Your task to perform on an android device: What's the news in India? Image 0: 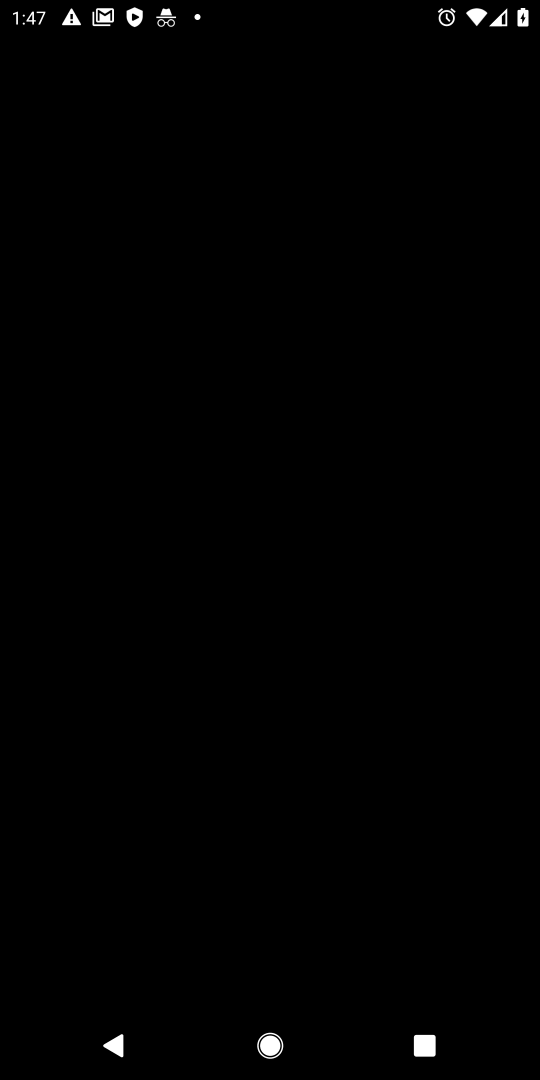
Step 0: press home button
Your task to perform on an android device: What's the news in India? Image 1: 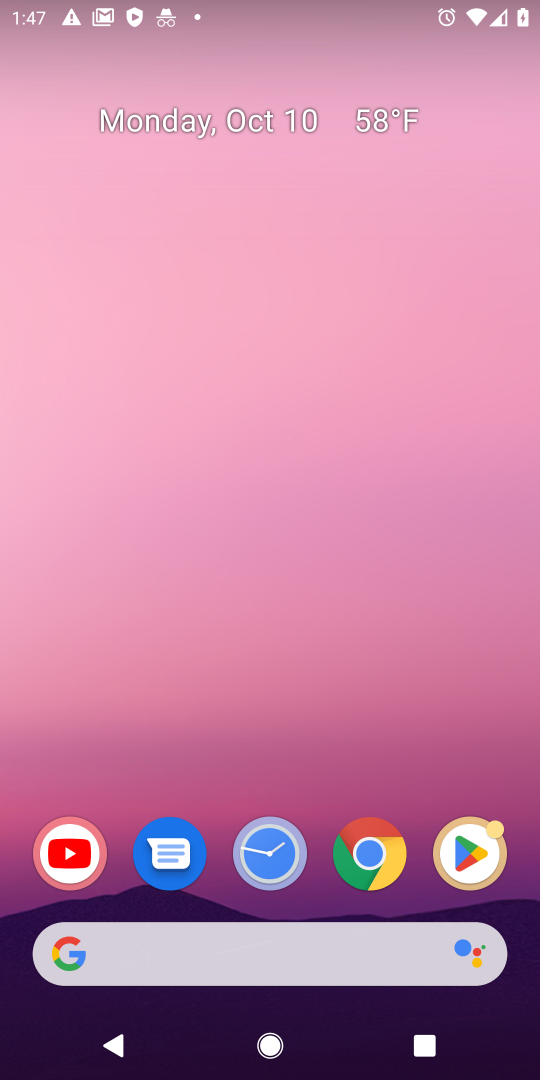
Step 1: click (363, 844)
Your task to perform on an android device: What's the news in India? Image 2: 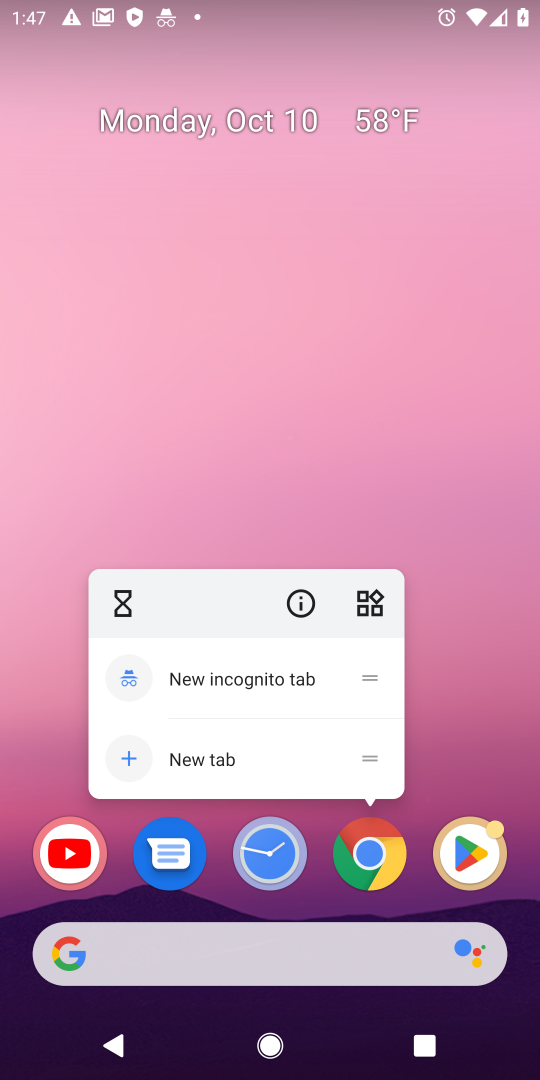
Step 2: click (355, 867)
Your task to perform on an android device: What's the news in India? Image 3: 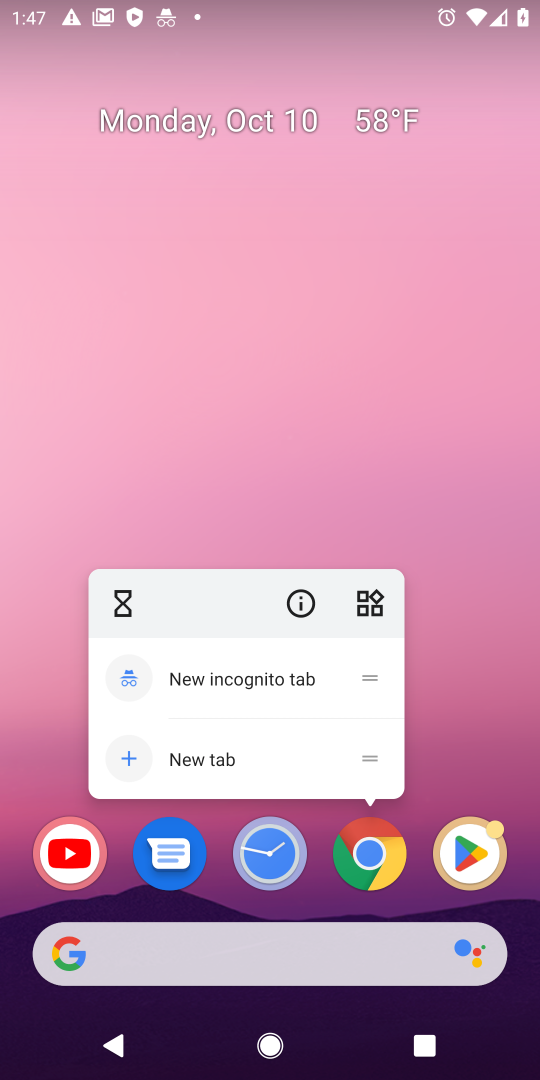
Step 3: click (380, 874)
Your task to perform on an android device: What's the news in India? Image 4: 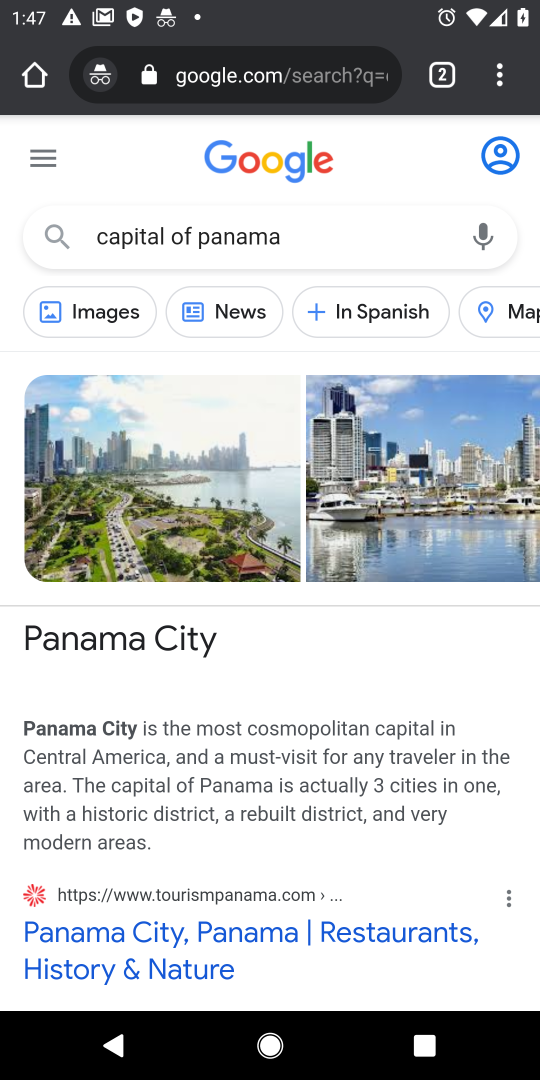
Step 4: click (314, 247)
Your task to perform on an android device: What's the news in India? Image 5: 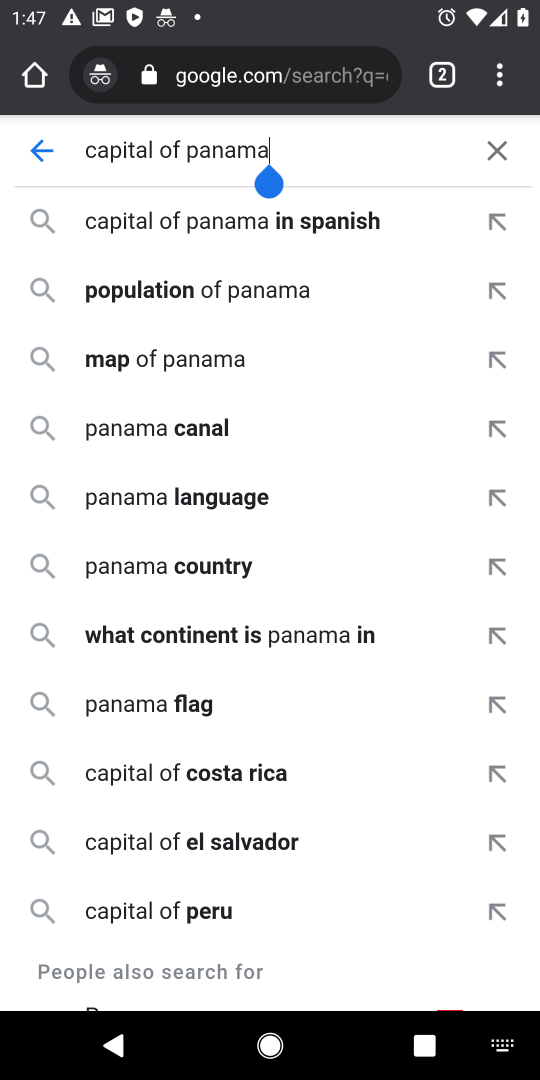
Step 5: click (500, 153)
Your task to perform on an android device: What's the news in India? Image 6: 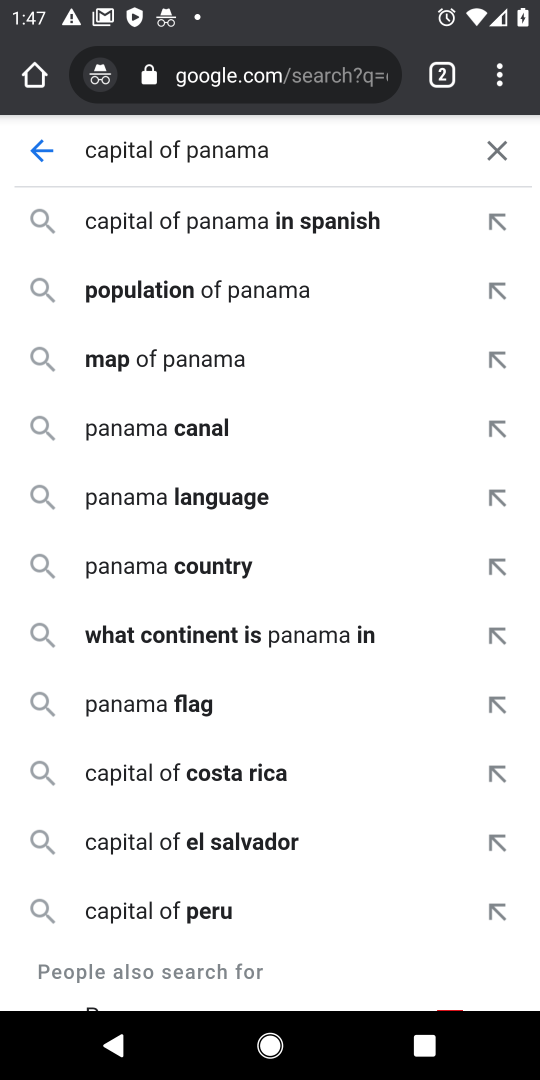
Step 6: click (499, 156)
Your task to perform on an android device: What's the news in India? Image 7: 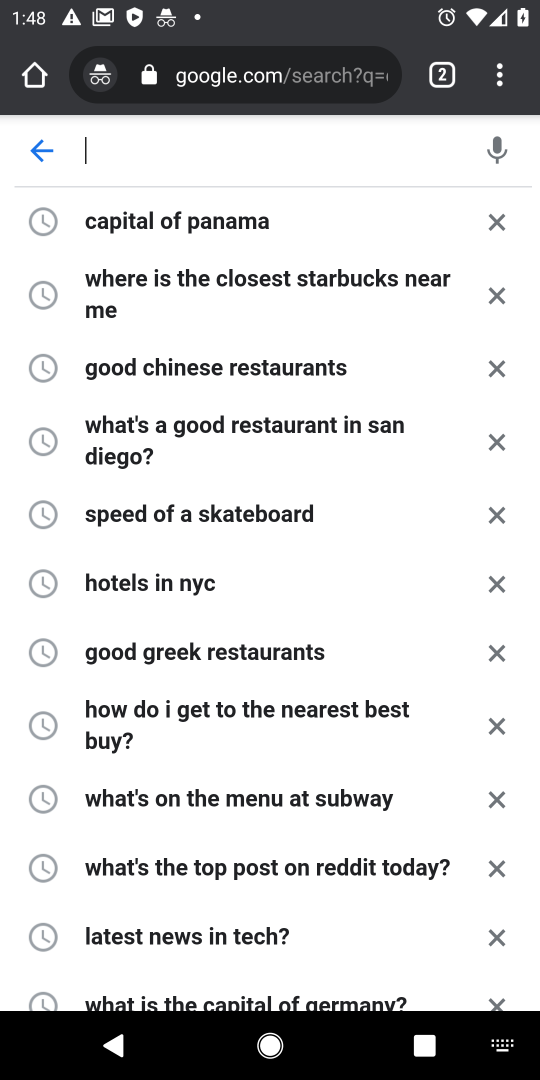
Step 7: type "news in india"
Your task to perform on an android device: What's the news in India? Image 8: 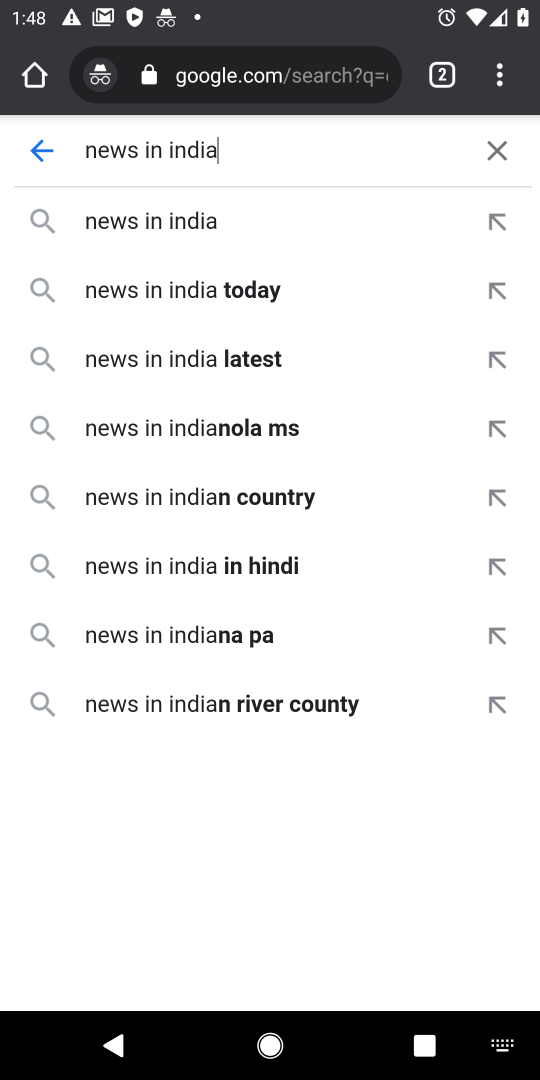
Step 8: click (212, 220)
Your task to perform on an android device: What's the news in India? Image 9: 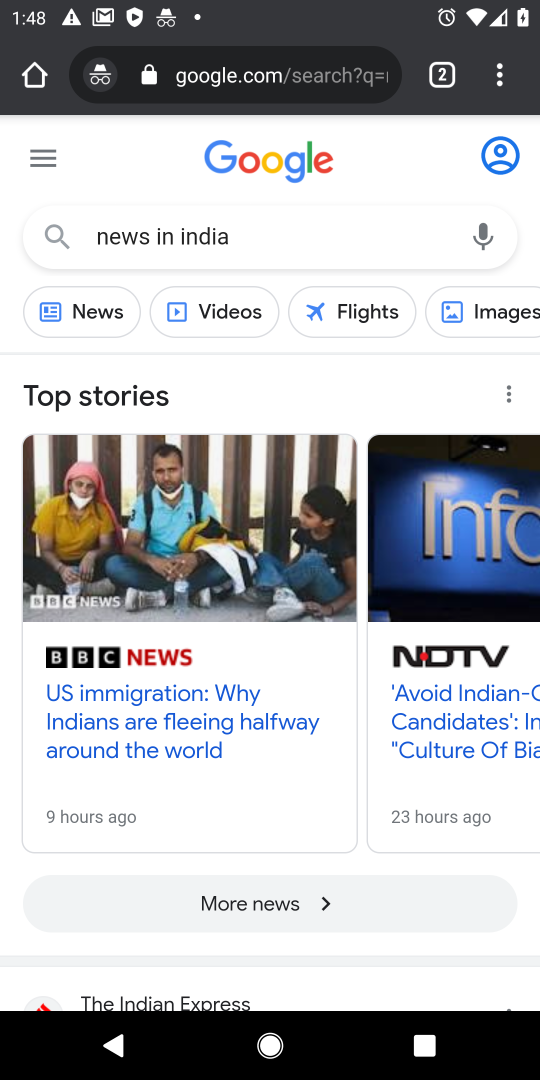
Step 9: click (99, 318)
Your task to perform on an android device: What's the news in India? Image 10: 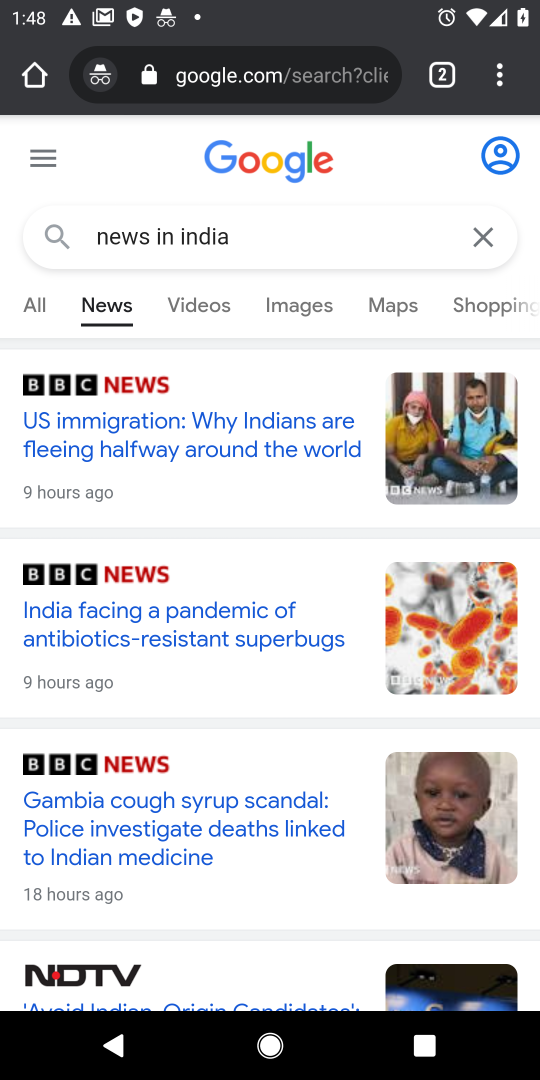
Step 10: task complete